Your task to perform on an android device: Go to Android settings Image 0: 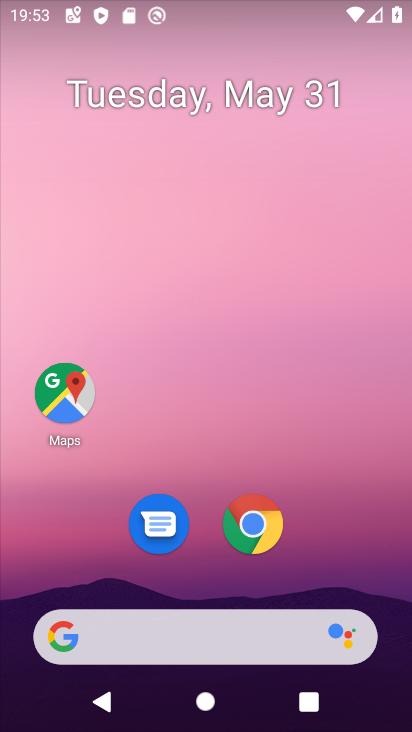
Step 0: drag from (202, 470) to (166, 1)
Your task to perform on an android device: Go to Android settings Image 1: 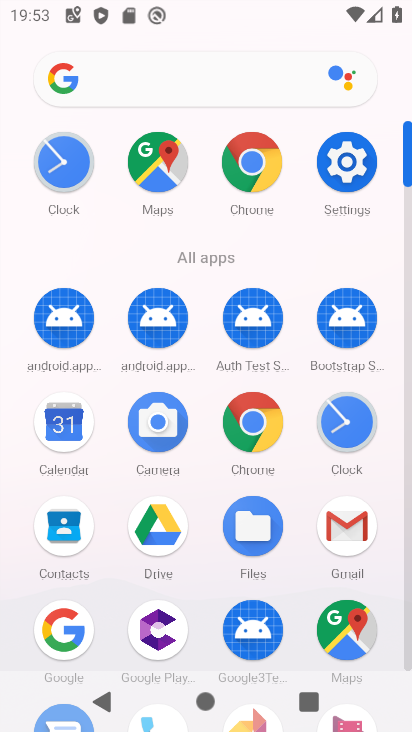
Step 1: click (334, 154)
Your task to perform on an android device: Go to Android settings Image 2: 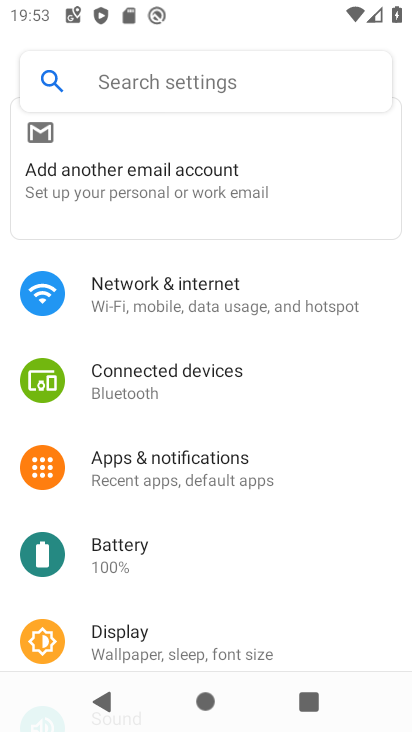
Step 2: drag from (236, 586) to (254, 90)
Your task to perform on an android device: Go to Android settings Image 3: 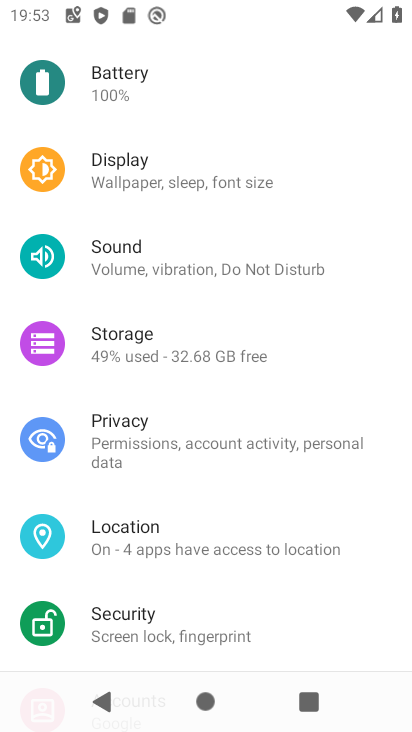
Step 3: drag from (220, 509) to (265, 88)
Your task to perform on an android device: Go to Android settings Image 4: 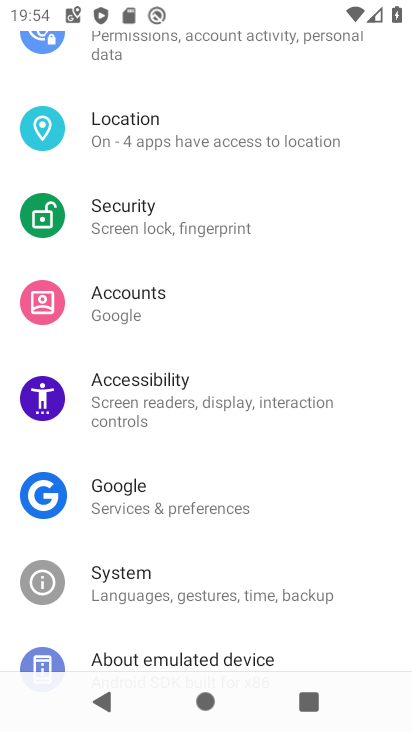
Step 4: drag from (184, 466) to (189, 190)
Your task to perform on an android device: Go to Android settings Image 5: 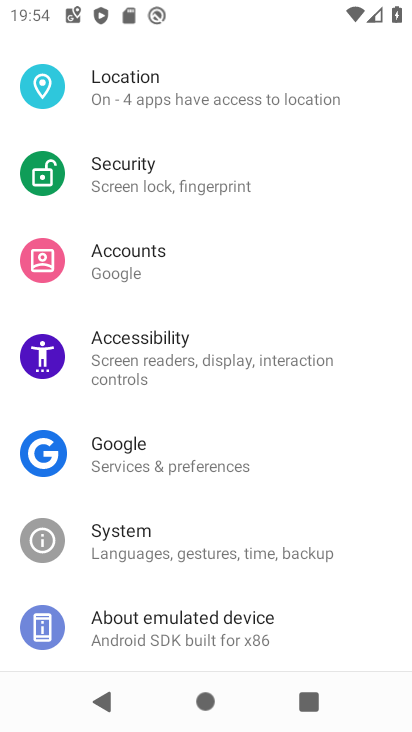
Step 5: click (190, 622)
Your task to perform on an android device: Go to Android settings Image 6: 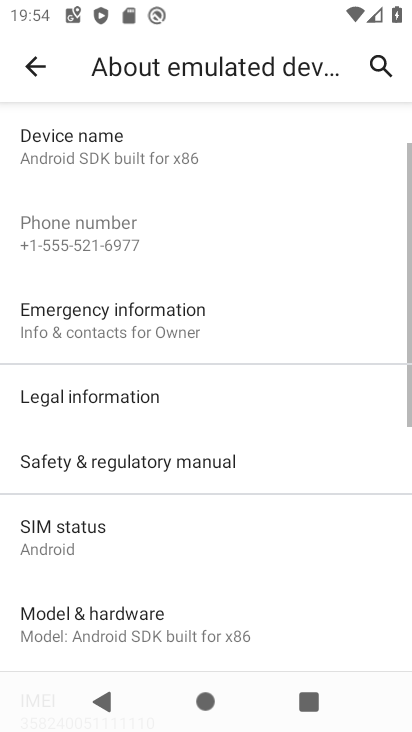
Step 6: task complete